Your task to perform on an android device: change the clock display to analog Image 0: 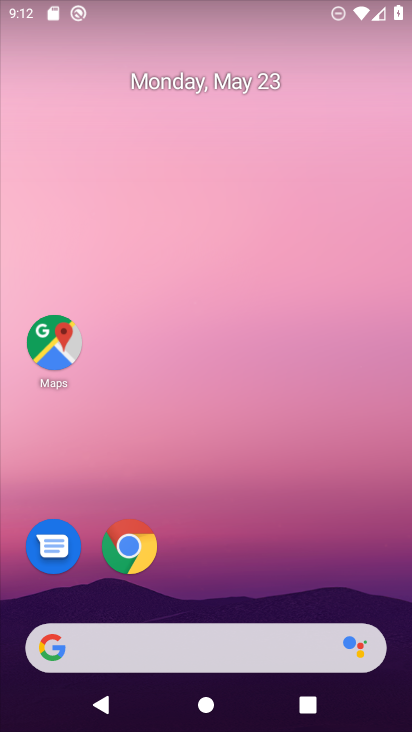
Step 0: drag from (299, 556) to (266, 60)
Your task to perform on an android device: change the clock display to analog Image 1: 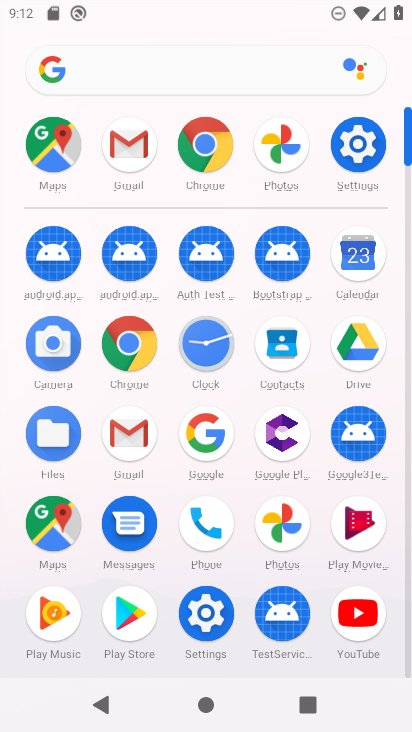
Step 1: click (208, 352)
Your task to perform on an android device: change the clock display to analog Image 2: 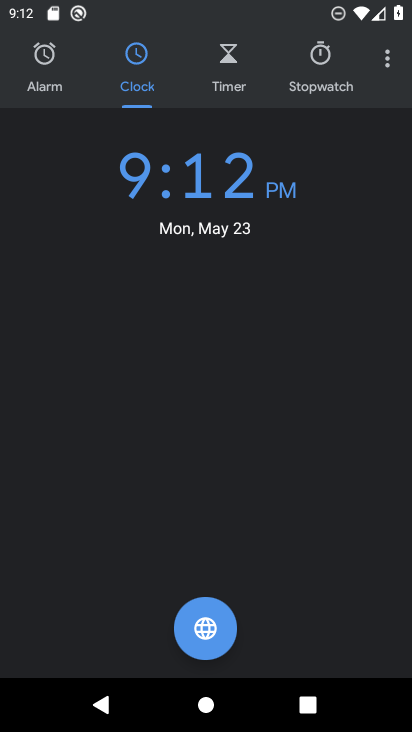
Step 2: click (385, 58)
Your task to perform on an android device: change the clock display to analog Image 3: 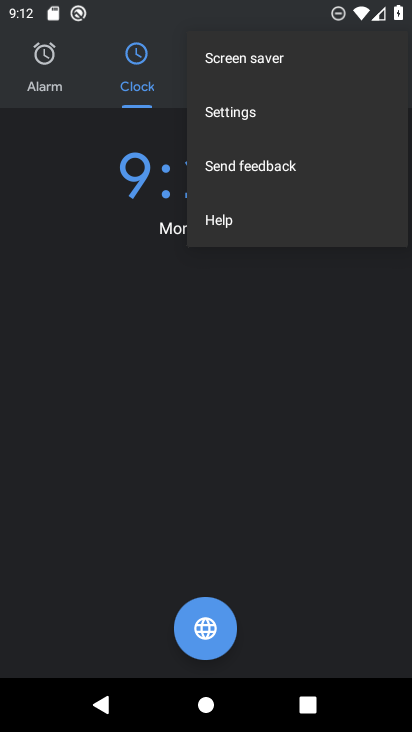
Step 3: click (248, 115)
Your task to perform on an android device: change the clock display to analog Image 4: 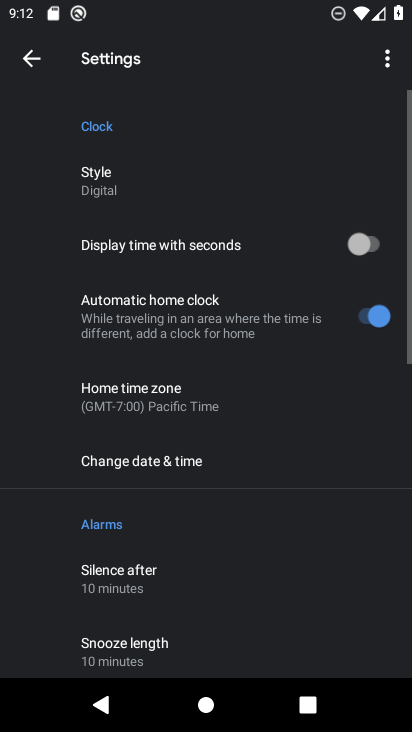
Step 4: click (90, 173)
Your task to perform on an android device: change the clock display to analog Image 5: 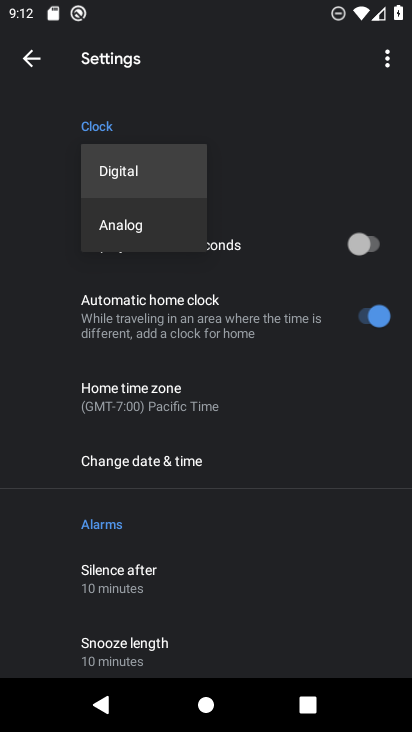
Step 5: click (152, 233)
Your task to perform on an android device: change the clock display to analog Image 6: 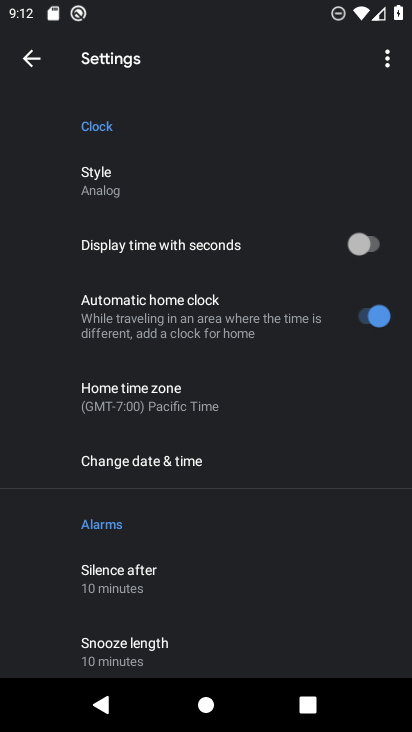
Step 6: task complete